Your task to perform on an android device: open device folders in google photos Image 0: 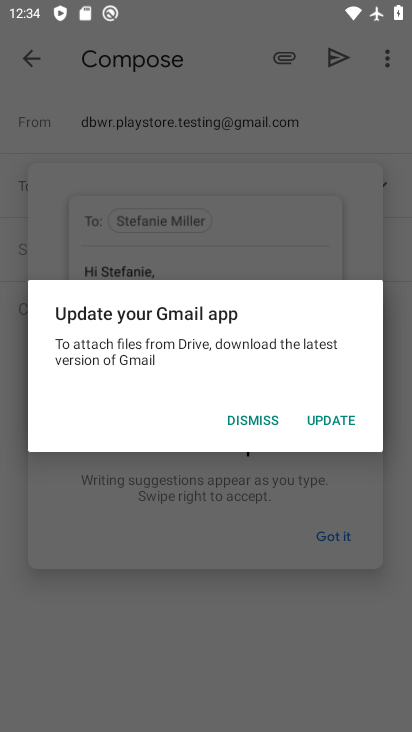
Step 0: click (258, 421)
Your task to perform on an android device: open device folders in google photos Image 1: 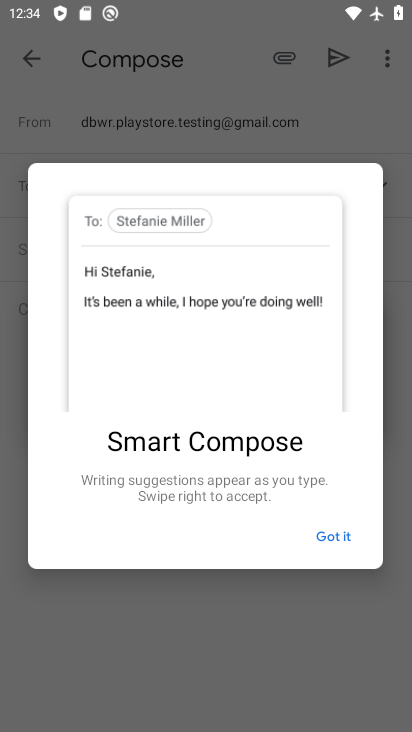
Step 1: press home button
Your task to perform on an android device: open device folders in google photos Image 2: 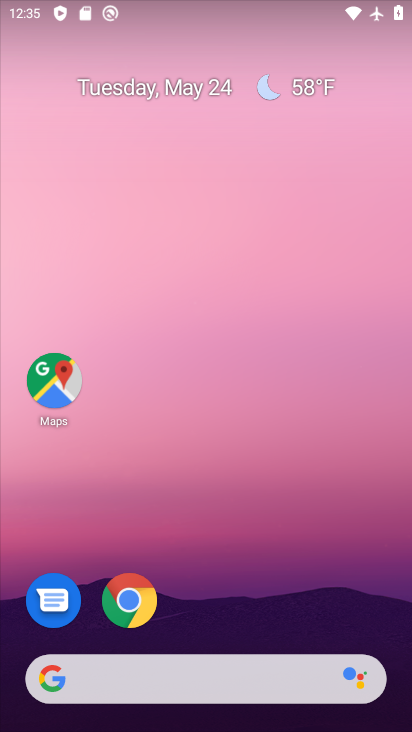
Step 2: drag from (280, 573) to (181, 0)
Your task to perform on an android device: open device folders in google photos Image 3: 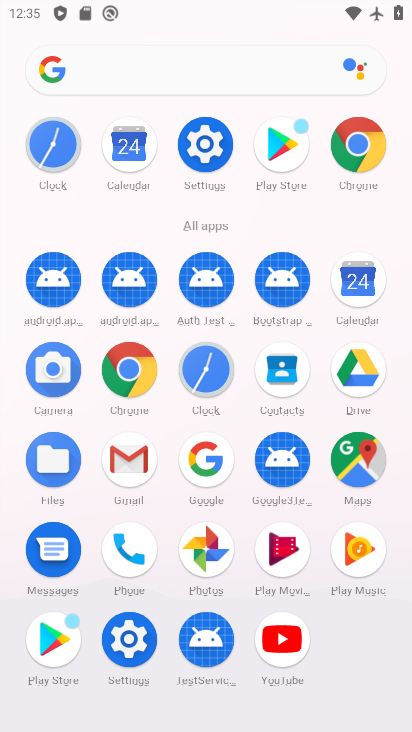
Step 3: click (203, 550)
Your task to perform on an android device: open device folders in google photos Image 4: 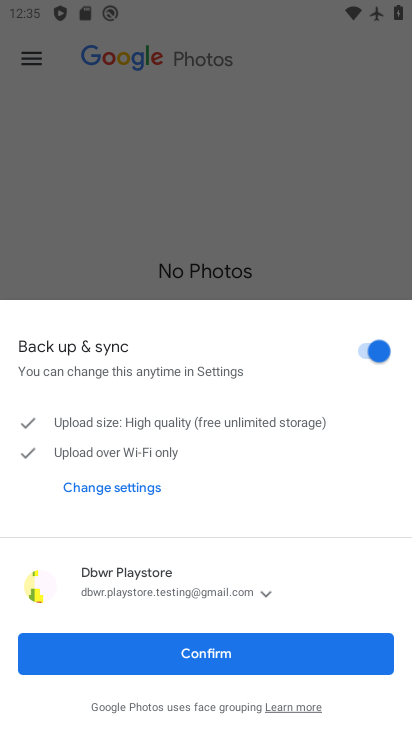
Step 4: click (258, 653)
Your task to perform on an android device: open device folders in google photos Image 5: 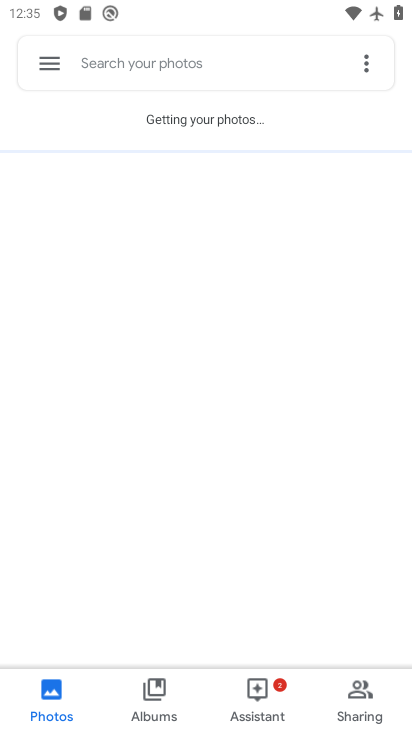
Step 5: click (49, 77)
Your task to perform on an android device: open device folders in google photos Image 6: 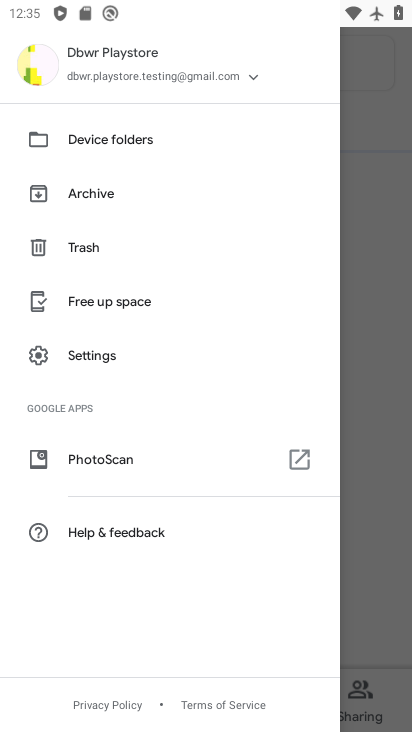
Step 6: click (84, 142)
Your task to perform on an android device: open device folders in google photos Image 7: 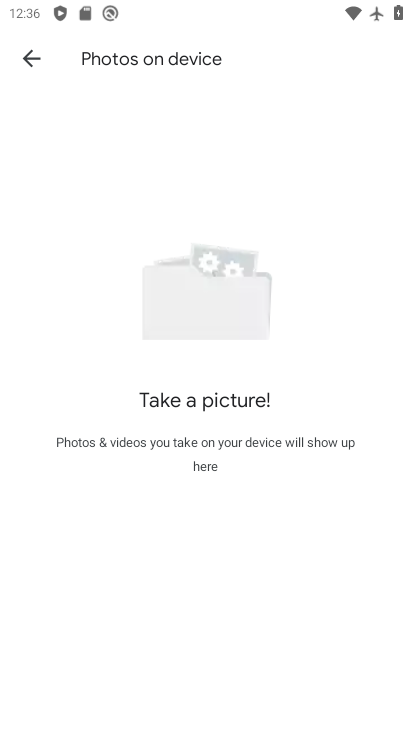
Step 7: task complete